Your task to perform on an android device: read, delete, or share a saved page in the chrome app Image 0: 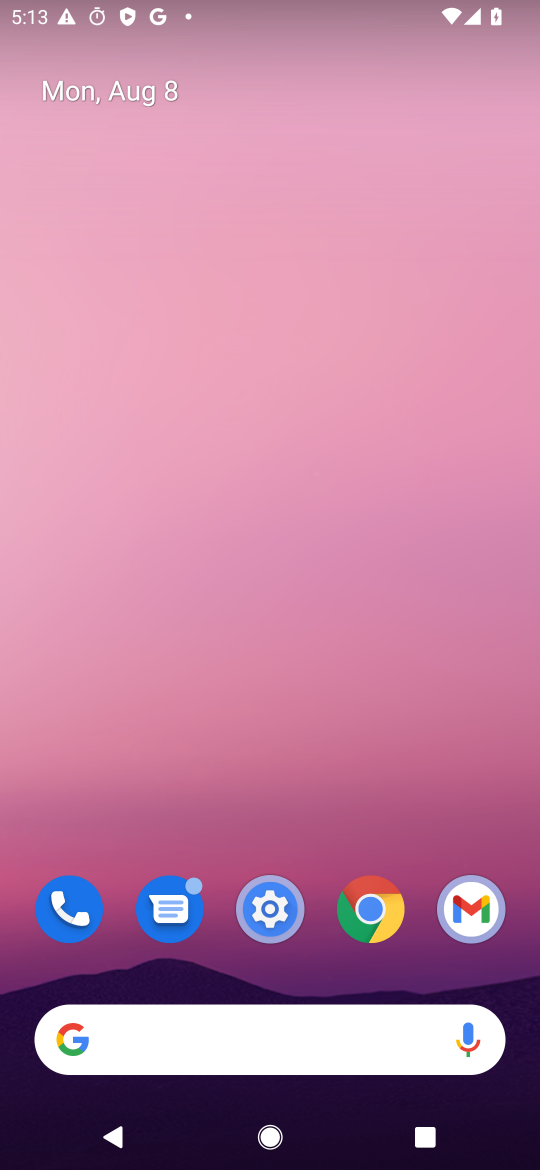
Step 0: click (372, 905)
Your task to perform on an android device: read, delete, or share a saved page in the chrome app Image 1: 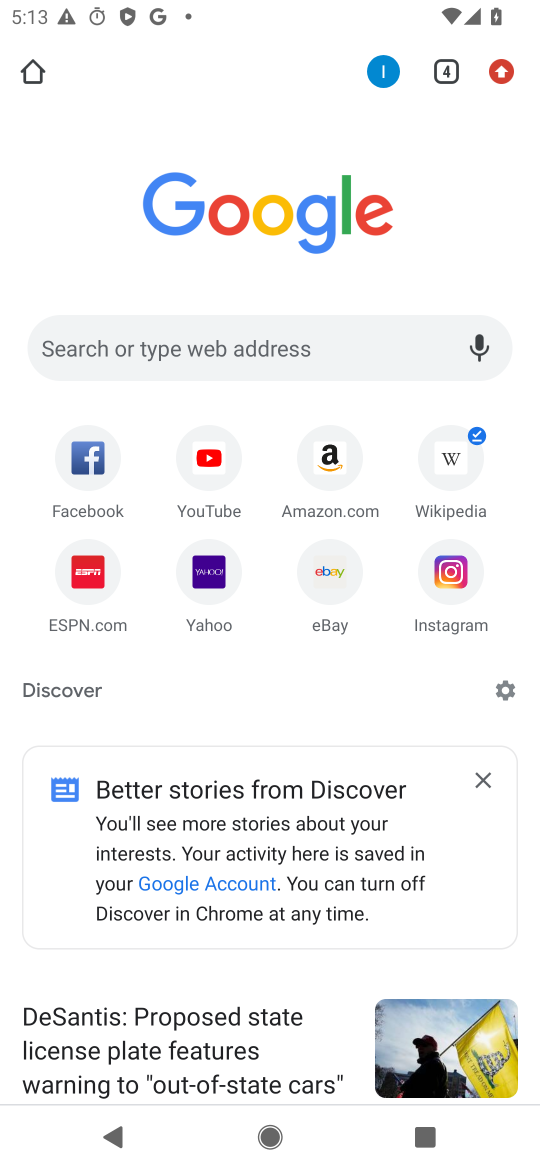
Step 1: task complete